Your task to perform on an android device: delete a single message in the gmail app Image 0: 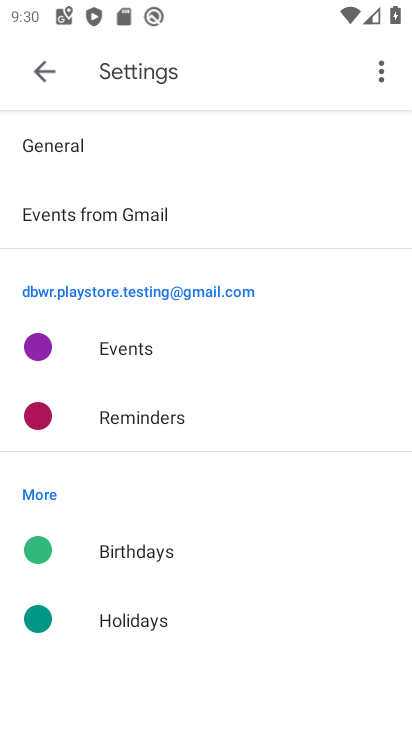
Step 0: press home button
Your task to perform on an android device: delete a single message in the gmail app Image 1: 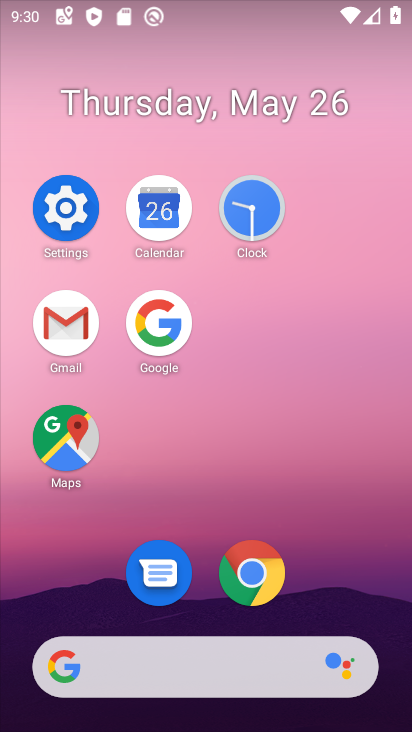
Step 1: click (85, 318)
Your task to perform on an android device: delete a single message in the gmail app Image 2: 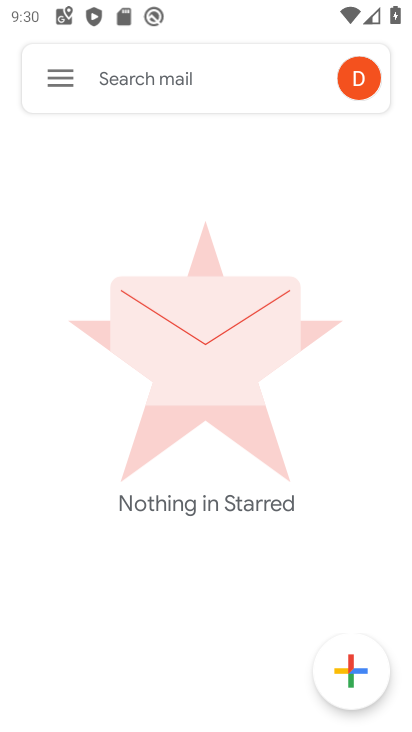
Step 2: click (58, 92)
Your task to perform on an android device: delete a single message in the gmail app Image 3: 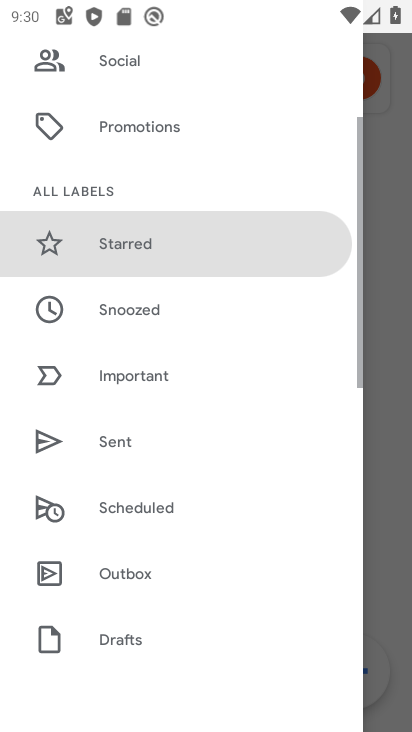
Step 3: drag from (208, 580) to (217, 175)
Your task to perform on an android device: delete a single message in the gmail app Image 4: 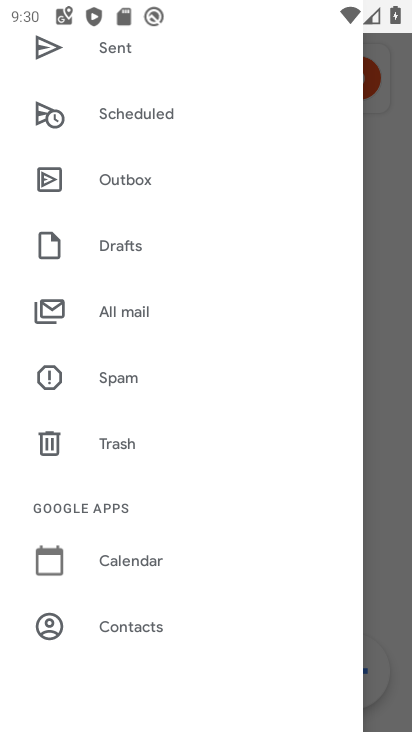
Step 4: click (185, 320)
Your task to perform on an android device: delete a single message in the gmail app Image 5: 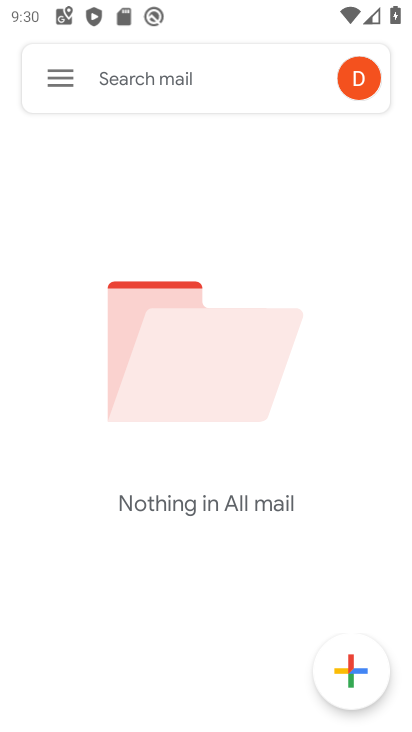
Step 5: task complete